Your task to perform on an android device: Open battery settings Image 0: 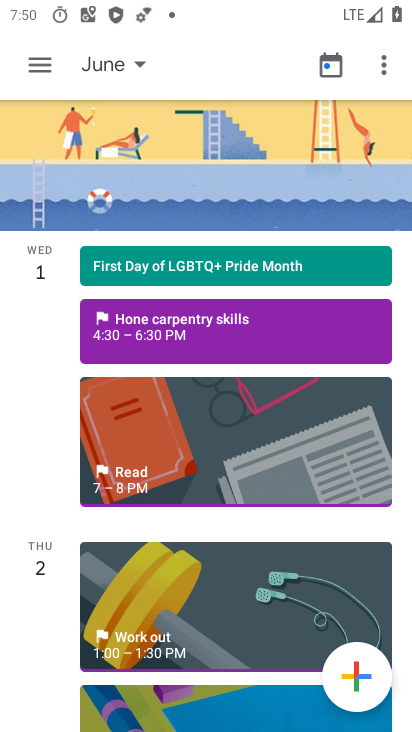
Step 0: press home button
Your task to perform on an android device: Open battery settings Image 1: 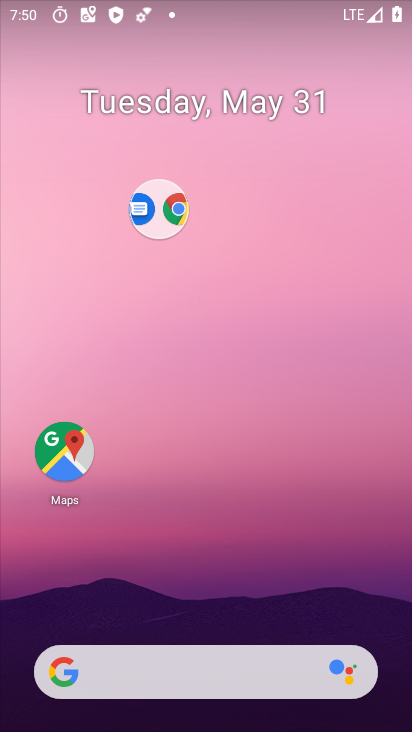
Step 1: drag from (241, 630) to (202, 22)
Your task to perform on an android device: Open battery settings Image 2: 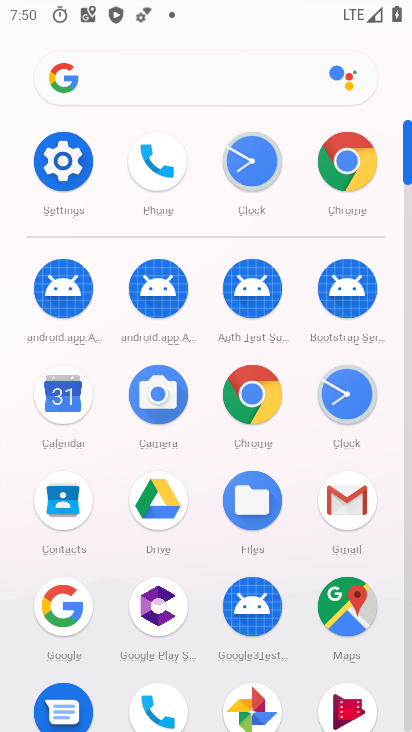
Step 2: click (62, 177)
Your task to perform on an android device: Open battery settings Image 3: 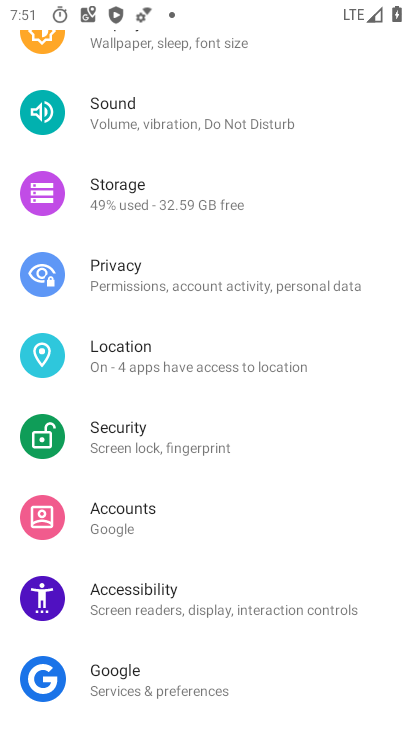
Step 3: drag from (231, 287) to (185, 729)
Your task to perform on an android device: Open battery settings Image 4: 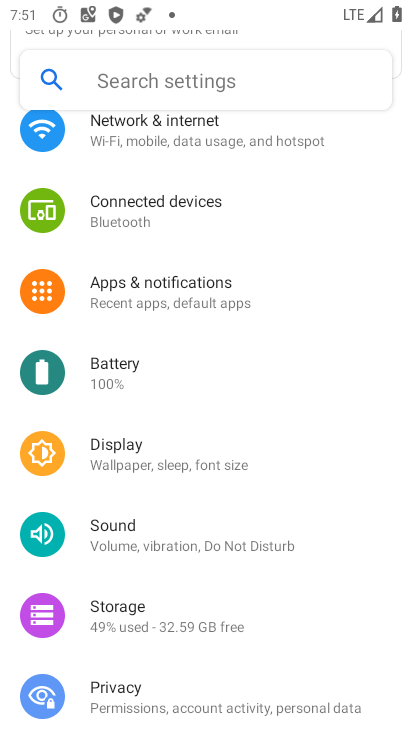
Step 4: click (125, 369)
Your task to perform on an android device: Open battery settings Image 5: 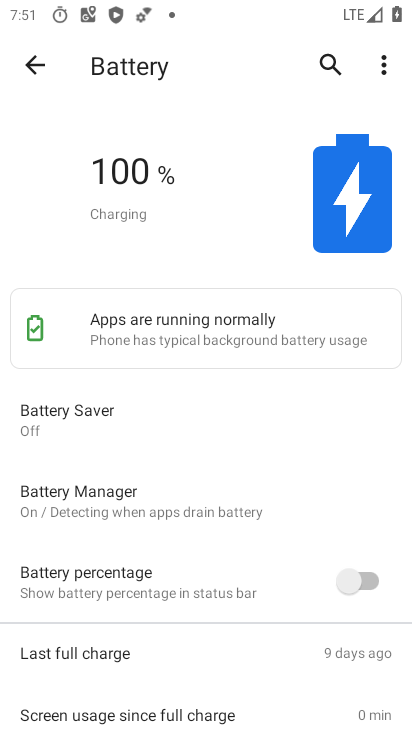
Step 5: task complete